Your task to perform on an android device: Go to Yahoo.com Image 0: 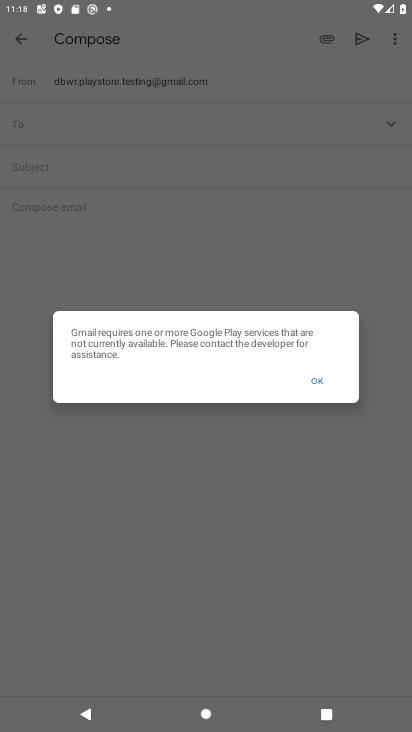
Step 0: press home button
Your task to perform on an android device: Go to Yahoo.com Image 1: 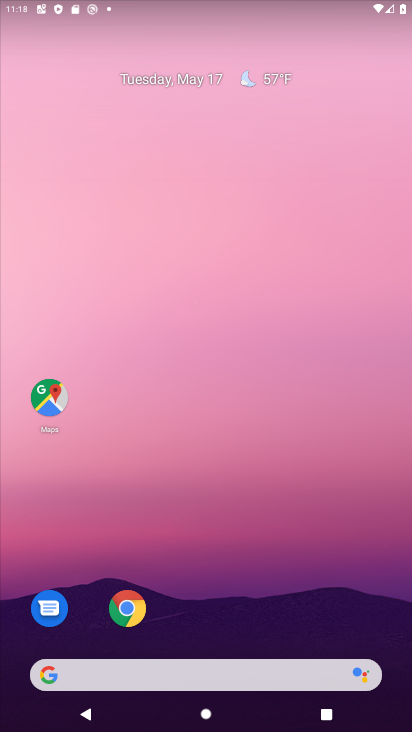
Step 1: click (126, 609)
Your task to perform on an android device: Go to Yahoo.com Image 2: 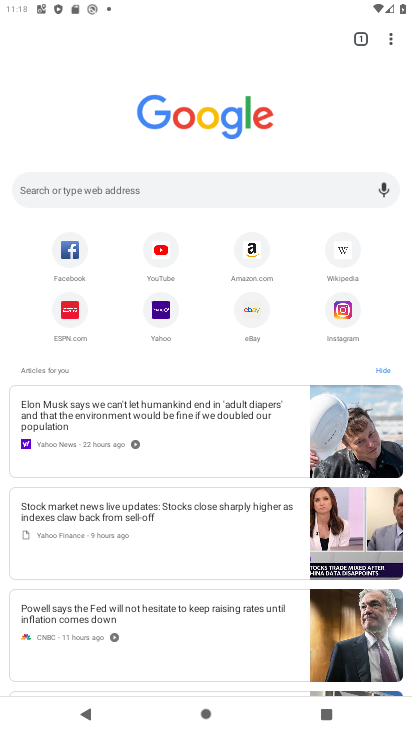
Step 2: click (168, 311)
Your task to perform on an android device: Go to Yahoo.com Image 3: 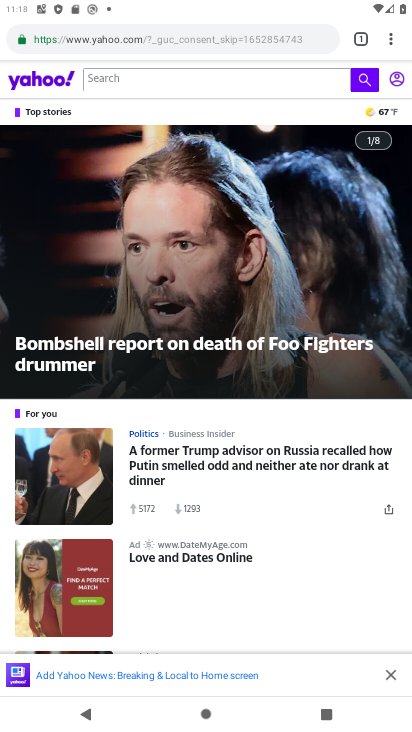
Step 3: task complete